Your task to perform on an android device: Clear the shopping cart on walmart. Search for logitech g pro on walmart, select the first entry, add it to the cart, then select checkout. Image 0: 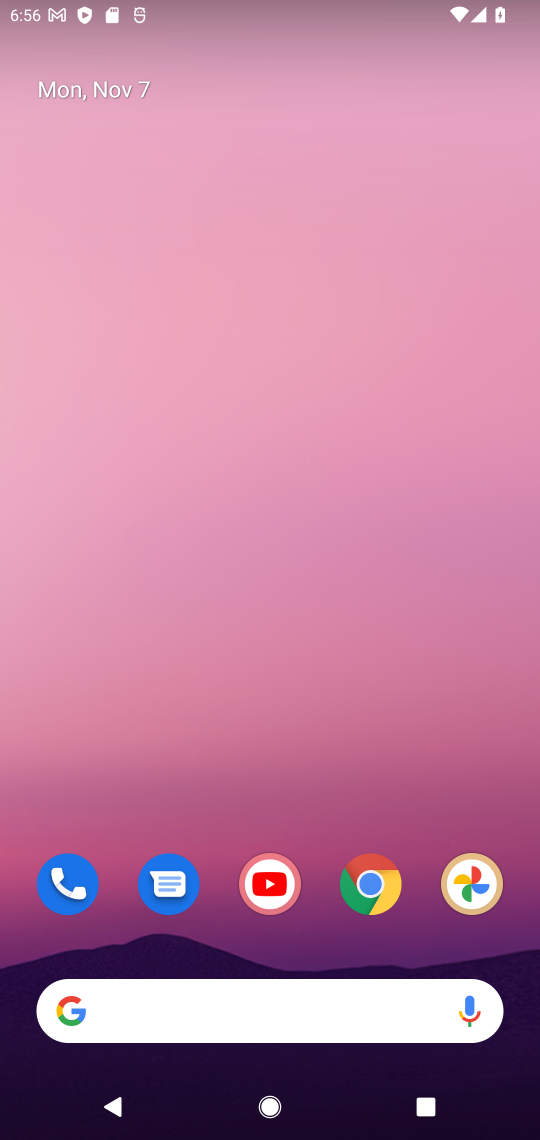
Step 0: click (371, 902)
Your task to perform on an android device: Clear the shopping cart on walmart. Search for logitech g pro on walmart, select the first entry, add it to the cart, then select checkout. Image 1: 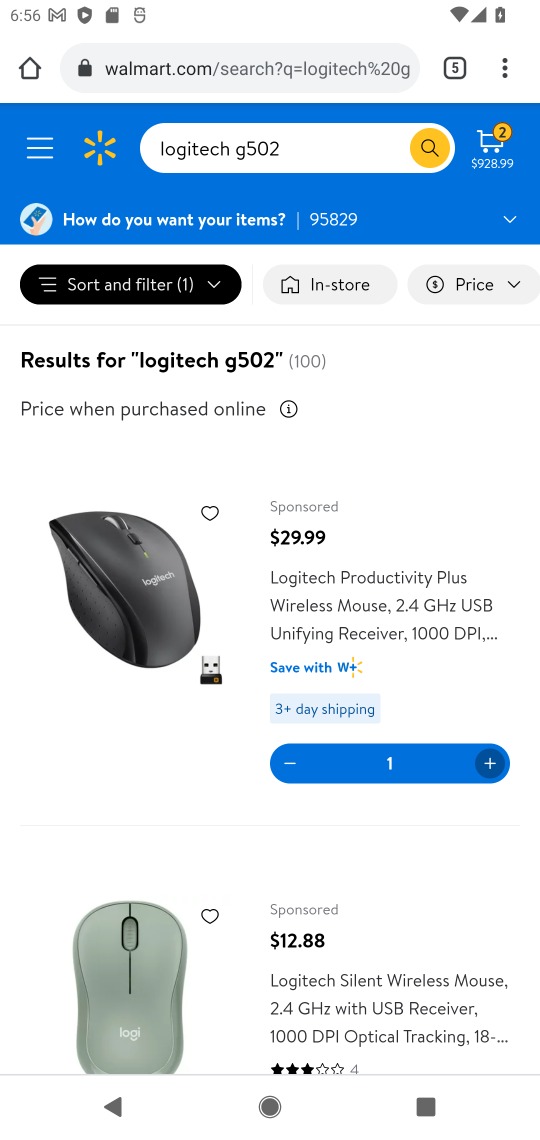
Step 1: click (334, 151)
Your task to perform on an android device: Clear the shopping cart on walmart. Search for logitech g pro on walmart, select the first entry, add it to the cart, then select checkout. Image 2: 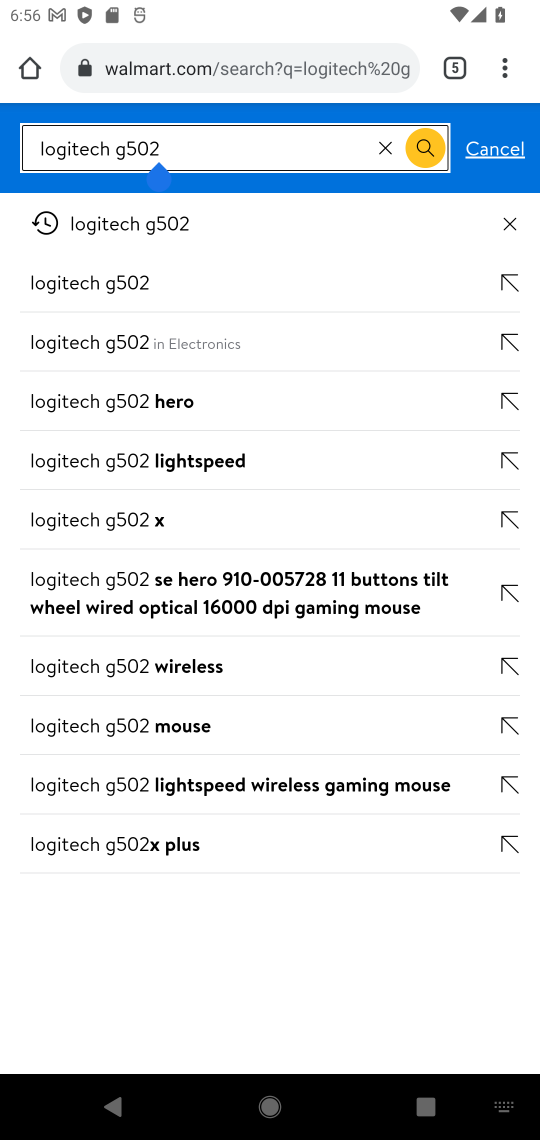
Step 2: type " pro"
Your task to perform on an android device: Clear the shopping cart on walmart. Search for logitech g pro on walmart, select the first entry, add it to the cart, then select checkout. Image 3: 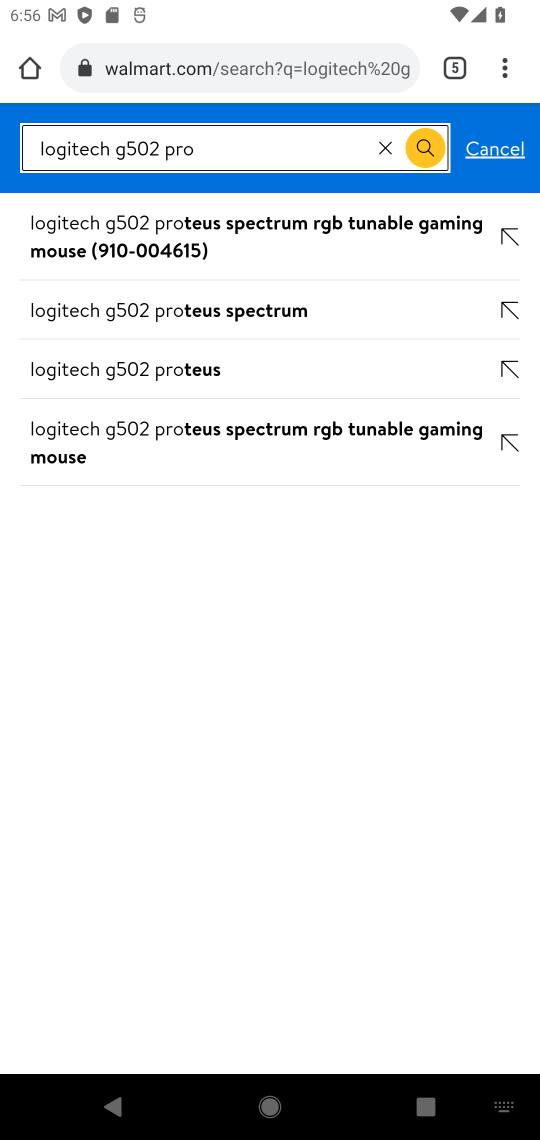
Step 3: click (153, 143)
Your task to perform on an android device: Clear the shopping cart on walmart. Search for logitech g pro on walmart, select the first entry, add it to the cart, then select checkout. Image 4: 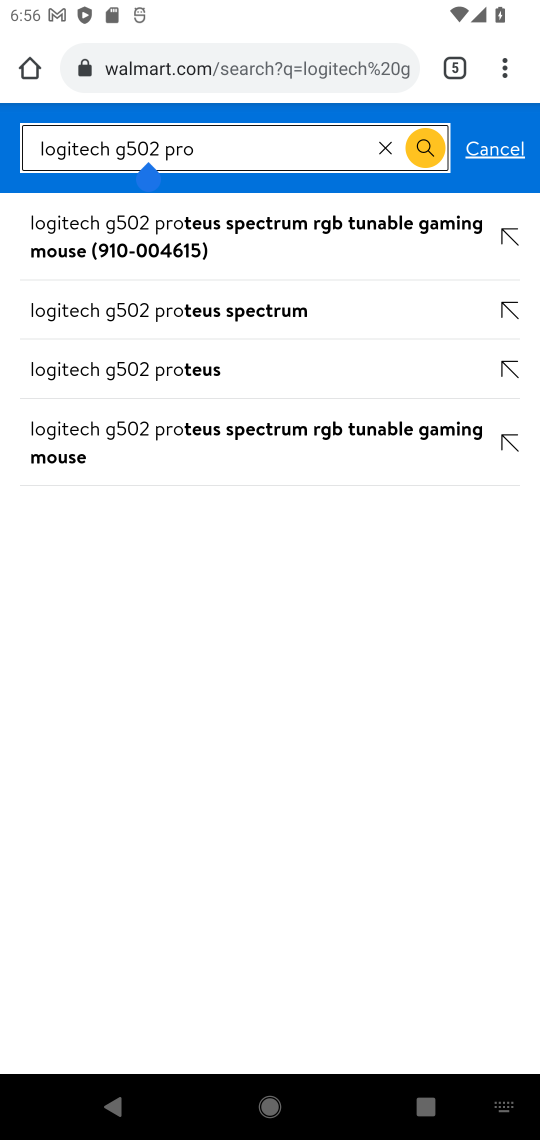
Step 4: click (153, 143)
Your task to perform on an android device: Clear the shopping cart on walmart. Search for logitech g pro on walmart, select the first entry, add it to the cart, then select checkout. Image 5: 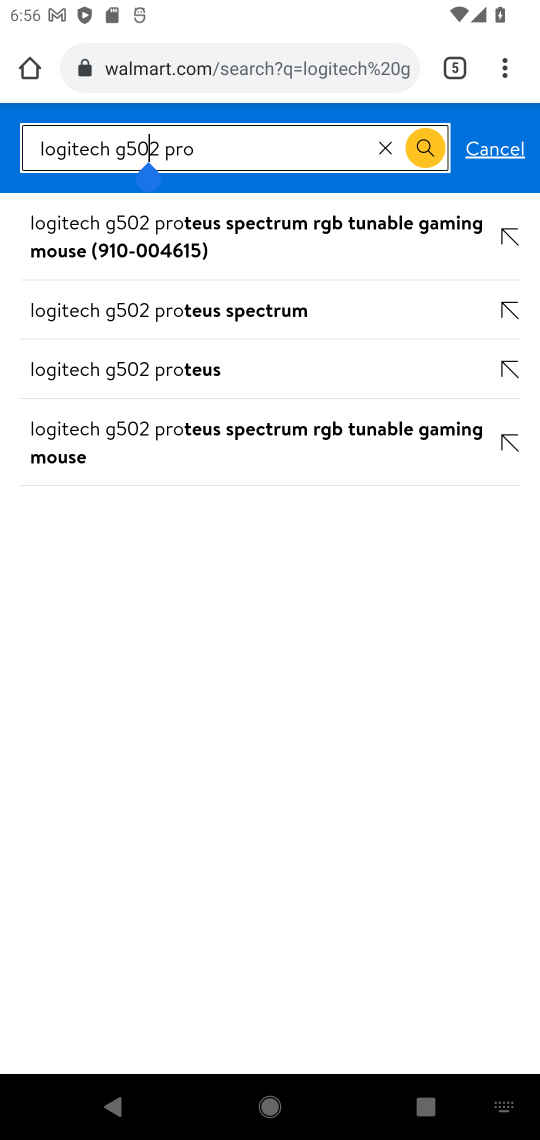
Step 5: click (164, 146)
Your task to perform on an android device: Clear the shopping cart on walmart. Search for logitech g pro on walmart, select the first entry, add it to the cart, then select checkout. Image 6: 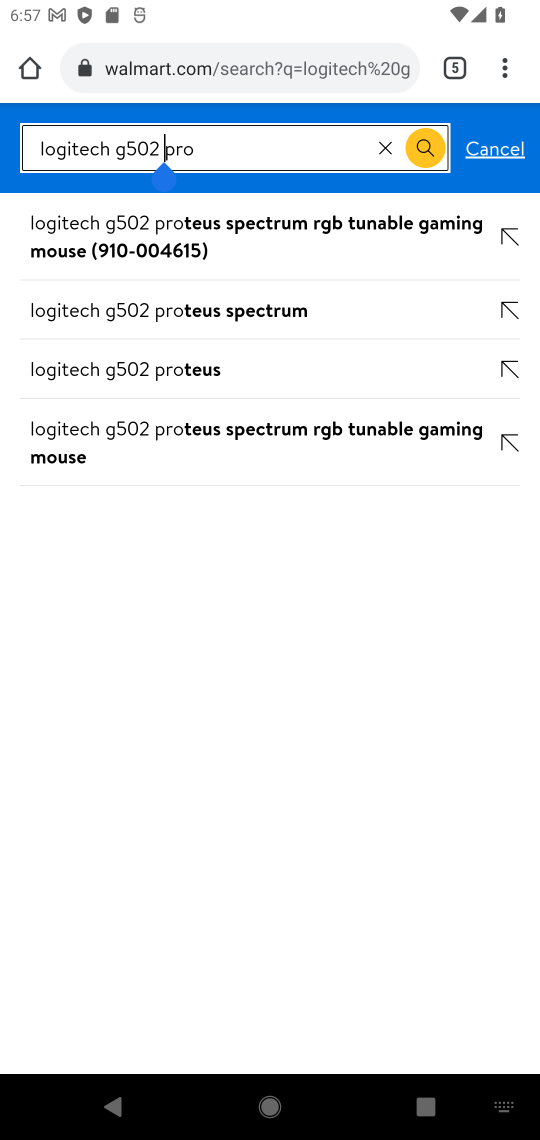
Step 6: click (423, 145)
Your task to perform on an android device: Clear the shopping cart on walmart. Search for logitech g pro on walmart, select the first entry, add it to the cart, then select checkout. Image 7: 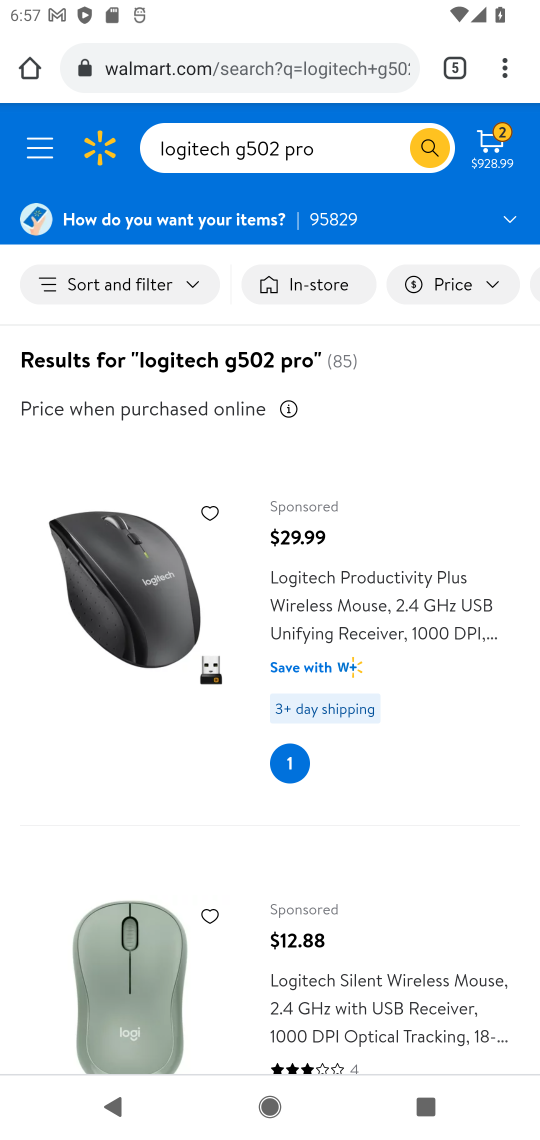
Step 7: click (307, 591)
Your task to perform on an android device: Clear the shopping cart on walmart. Search for logitech g pro on walmart, select the first entry, add it to the cart, then select checkout. Image 8: 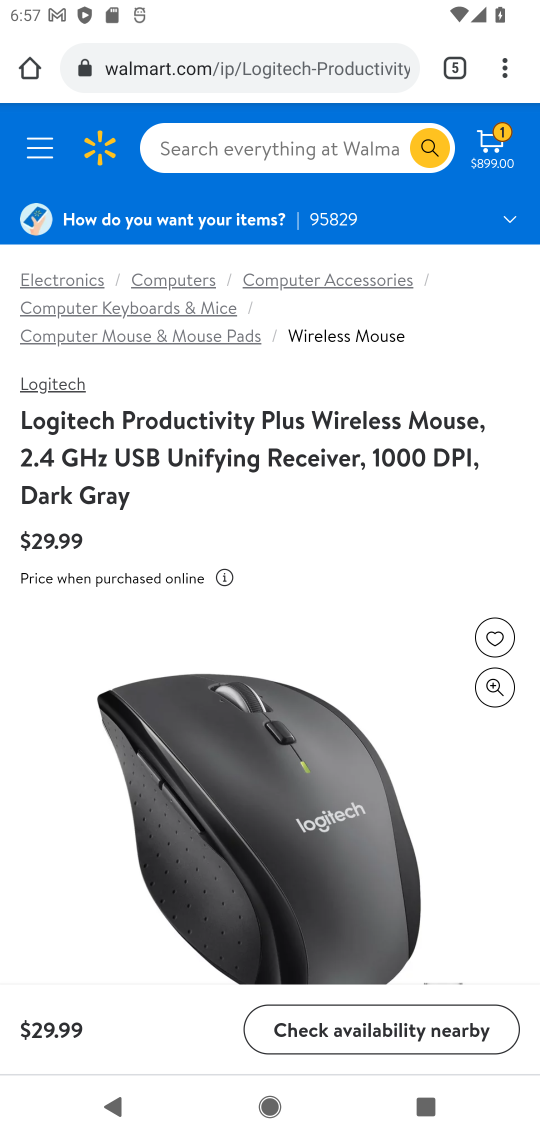
Step 8: drag from (479, 967) to (432, 143)
Your task to perform on an android device: Clear the shopping cart on walmart. Search for logitech g pro on walmart, select the first entry, add it to the cart, then select checkout. Image 9: 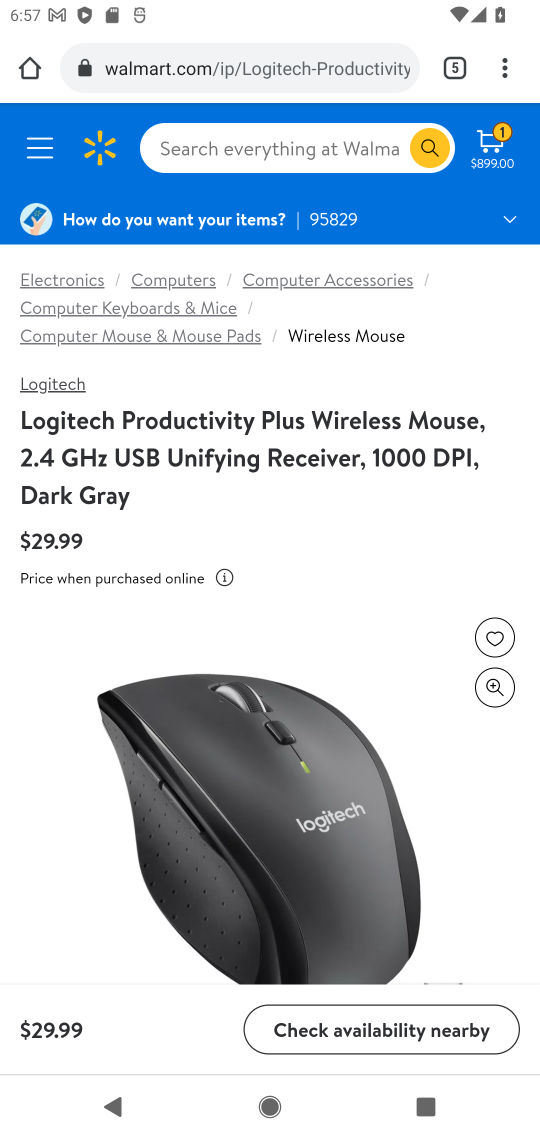
Step 9: drag from (100, 972) to (146, 301)
Your task to perform on an android device: Clear the shopping cart on walmart. Search for logitech g pro on walmart, select the first entry, add it to the cart, then select checkout. Image 10: 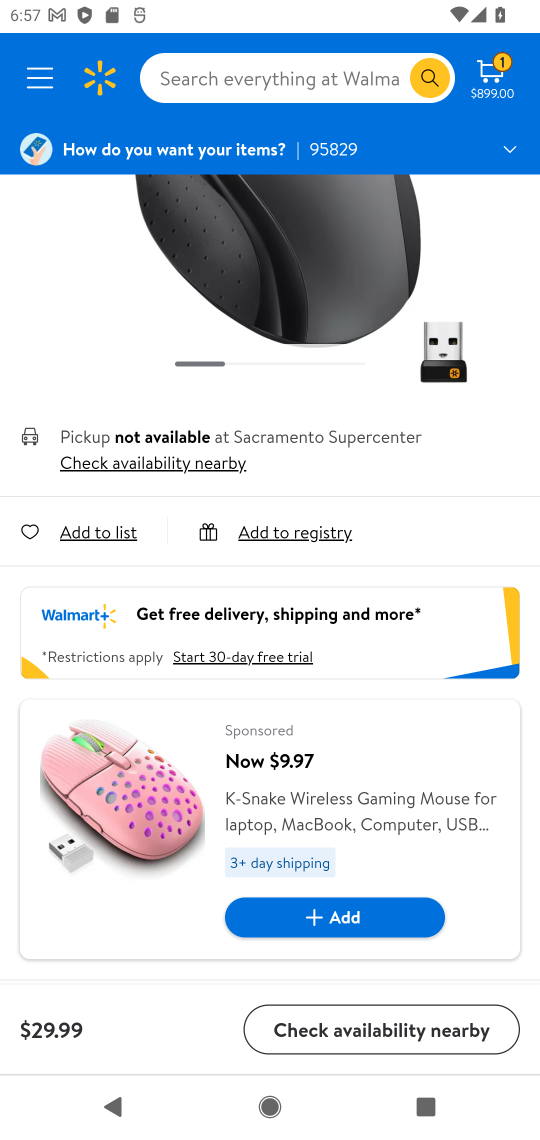
Step 10: drag from (209, 621) to (245, 22)
Your task to perform on an android device: Clear the shopping cart on walmart. Search for logitech g pro on walmart, select the first entry, add it to the cart, then select checkout. Image 11: 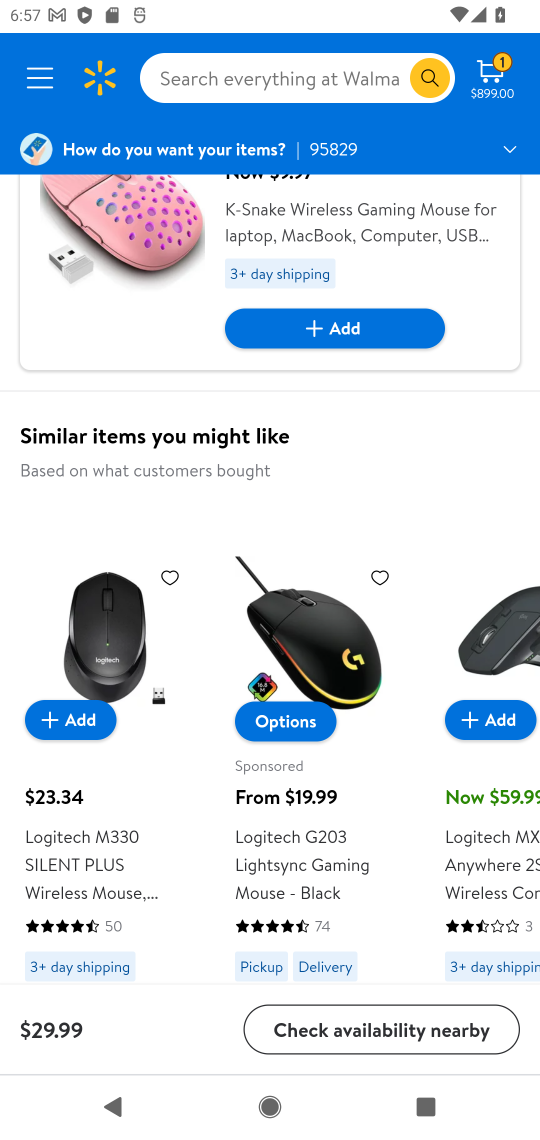
Step 11: click (74, 718)
Your task to perform on an android device: Clear the shopping cart on walmart. Search for logitech g pro on walmart, select the first entry, add it to the cart, then select checkout. Image 12: 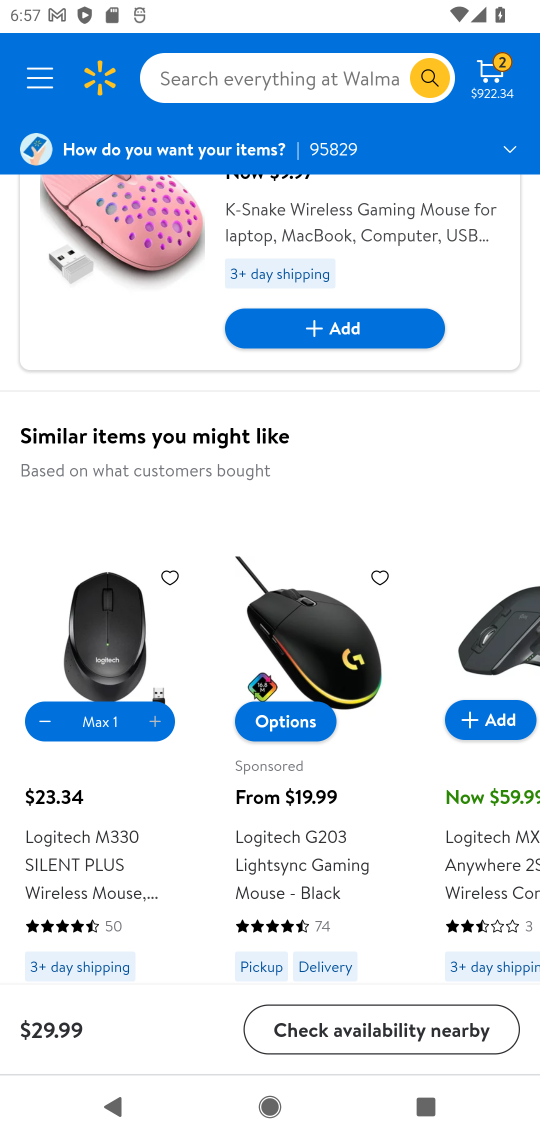
Step 12: task complete